Your task to perform on an android device: turn on location history Image 0: 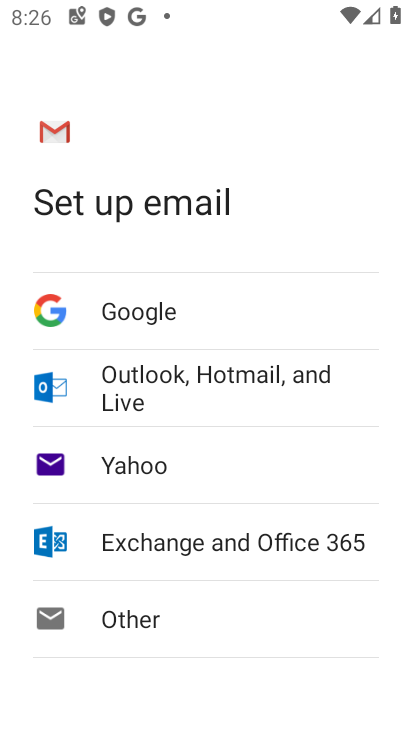
Step 0: press home button
Your task to perform on an android device: turn on location history Image 1: 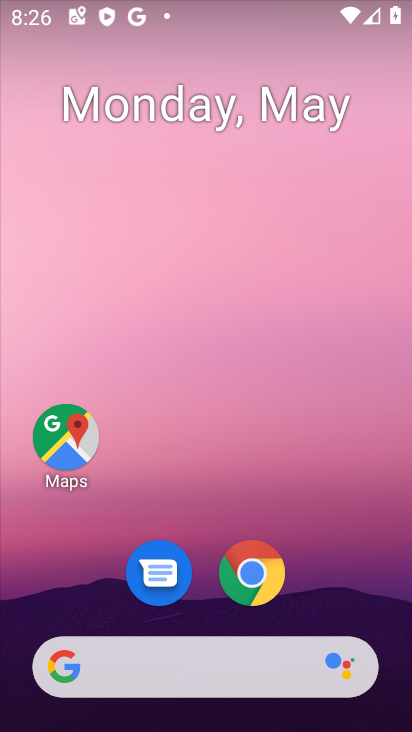
Step 1: drag from (233, 672) to (303, 154)
Your task to perform on an android device: turn on location history Image 2: 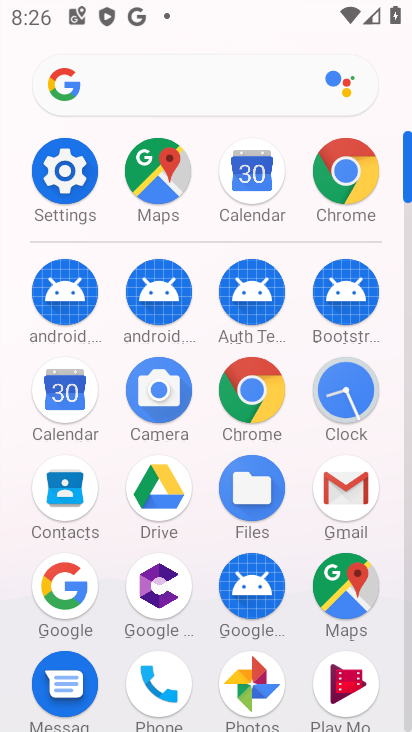
Step 2: click (82, 169)
Your task to perform on an android device: turn on location history Image 3: 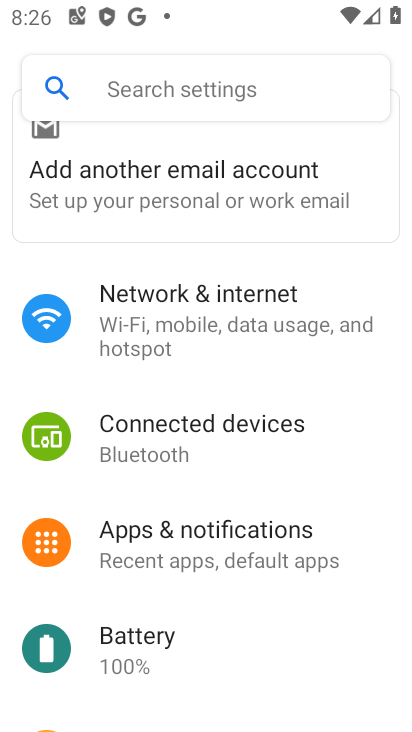
Step 3: drag from (178, 572) to (225, 267)
Your task to perform on an android device: turn on location history Image 4: 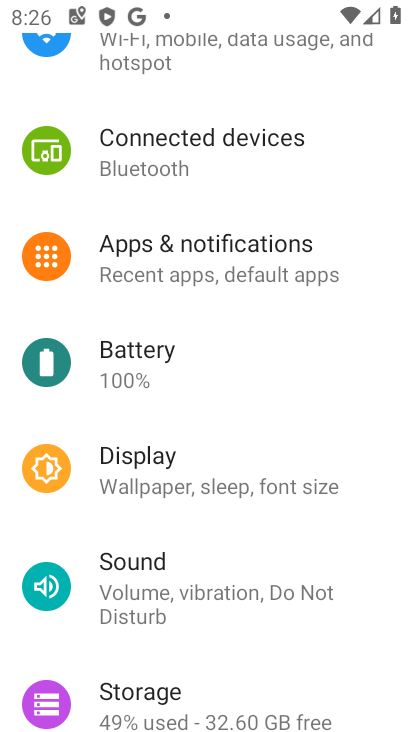
Step 4: drag from (189, 594) to (228, 367)
Your task to perform on an android device: turn on location history Image 5: 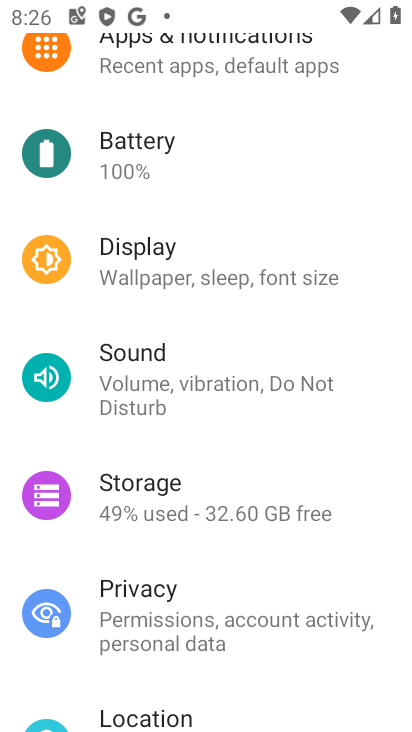
Step 5: click (221, 711)
Your task to perform on an android device: turn on location history Image 6: 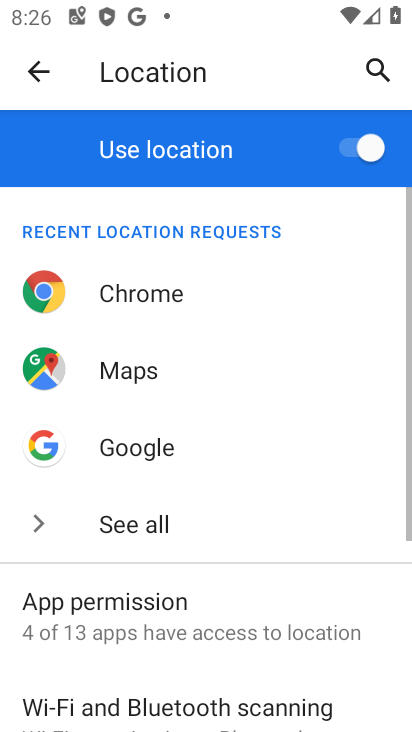
Step 6: drag from (220, 710) to (303, 240)
Your task to perform on an android device: turn on location history Image 7: 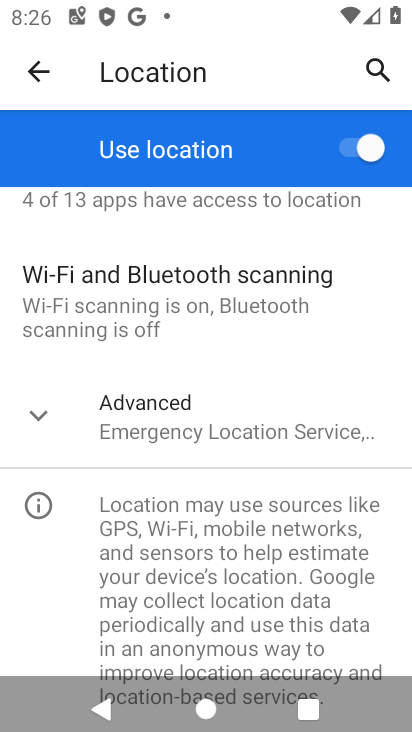
Step 7: click (144, 429)
Your task to perform on an android device: turn on location history Image 8: 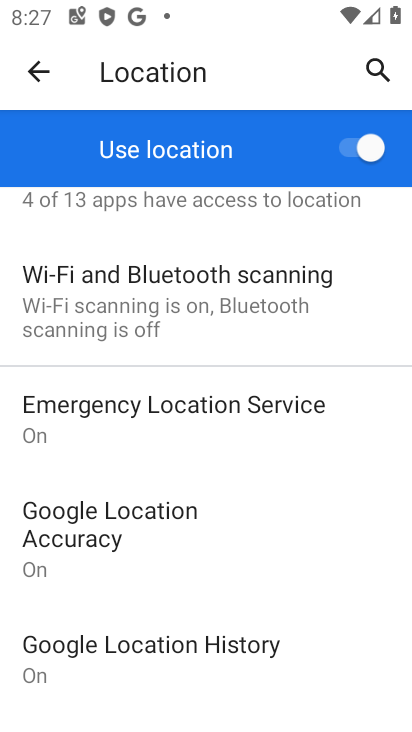
Step 8: click (160, 660)
Your task to perform on an android device: turn on location history Image 9: 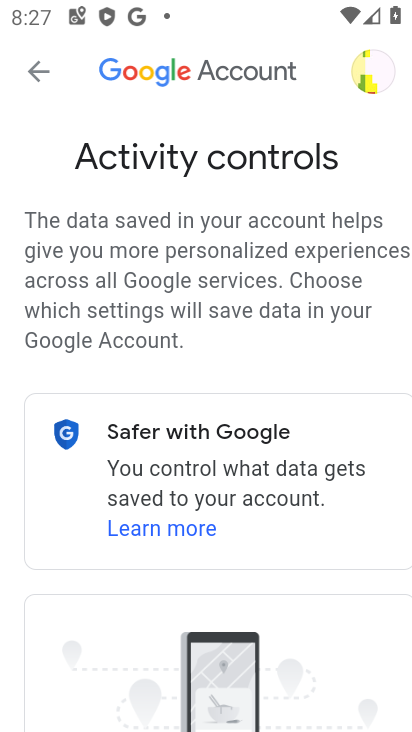
Step 9: drag from (312, 622) to (189, 197)
Your task to perform on an android device: turn on location history Image 10: 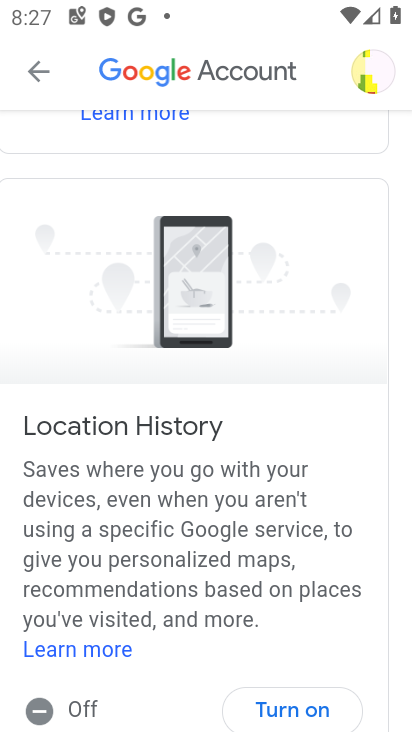
Step 10: drag from (266, 614) to (260, 473)
Your task to perform on an android device: turn on location history Image 11: 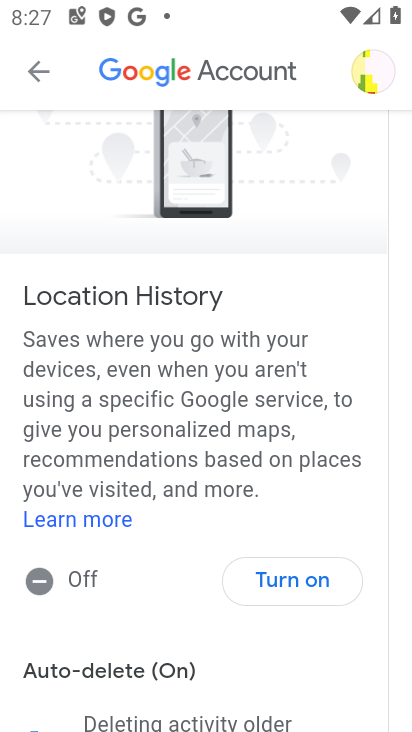
Step 11: click (291, 578)
Your task to perform on an android device: turn on location history Image 12: 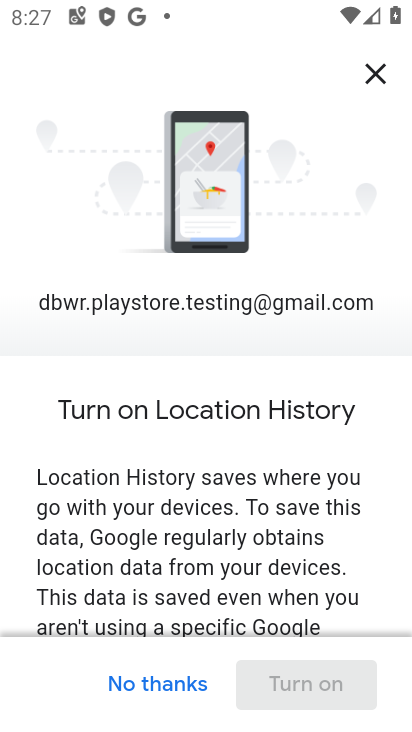
Step 12: drag from (270, 574) to (394, 27)
Your task to perform on an android device: turn on location history Image 13: 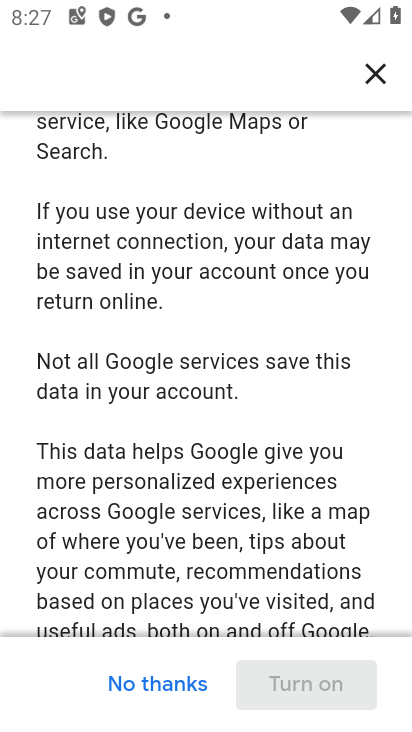
Step 13: drag from (263, 504) to (412, 104)
Your task to perform on an android device: turn on location history Image 14: 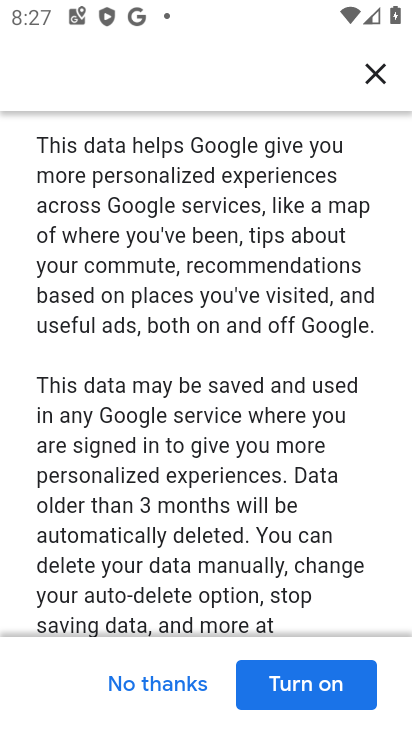
Step 14: click (296, 702)
Your task to perform on an android device: turn on location history Image 15: 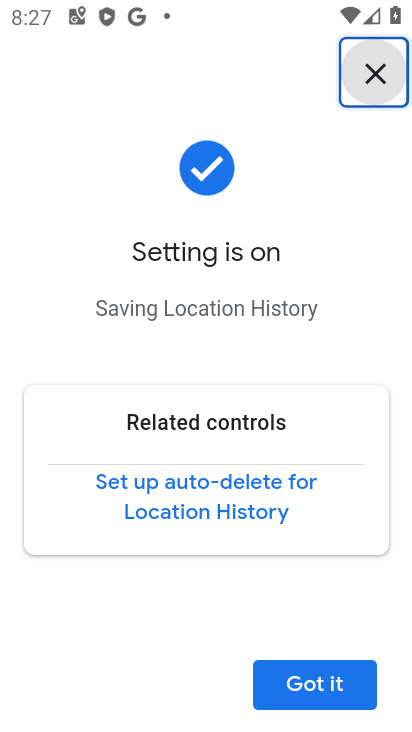
Step 15: click (319, 686)
Your task to perform on an android device: turn on location history Image 16: 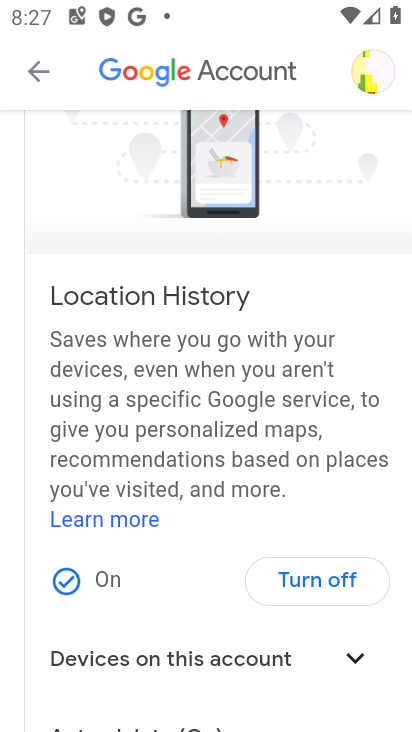
Step 16: task complete